Your task to perform on an android device: What's the weather going to be this weekend? Image 0: 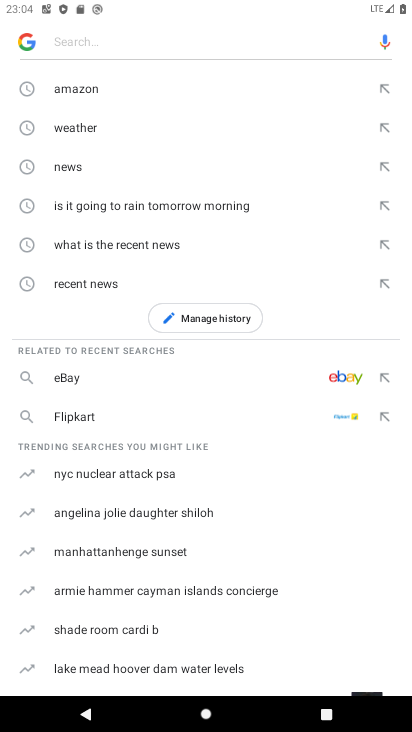
Step 0: press home button
Your task to perform on an android device: What's the weather going to be this weekend? Image 1: 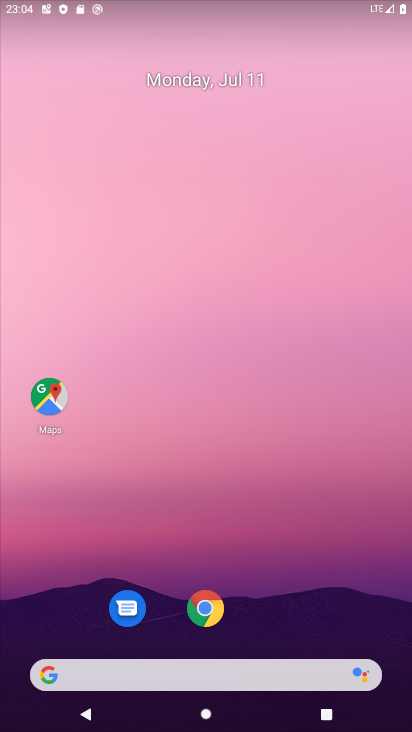
Step 1: click (115, 672)
Your task to perform on an android device: What's the weather going to be this weekend? Image 2: 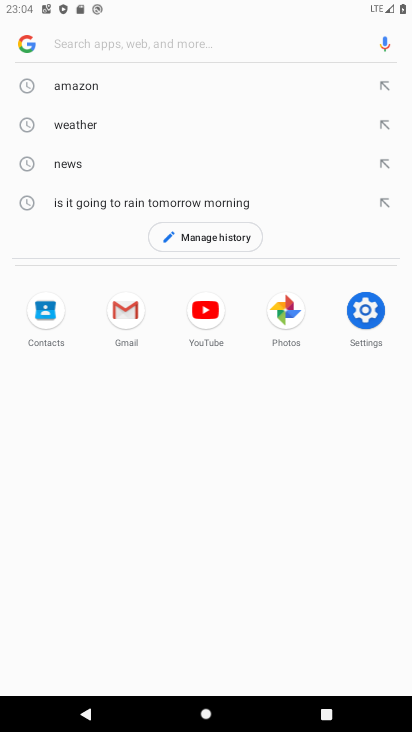
Step 2: type "What's the weather going to be this weekend?"
Your task to perform on an android device: What's the weather going to be this weekend? Image 3: 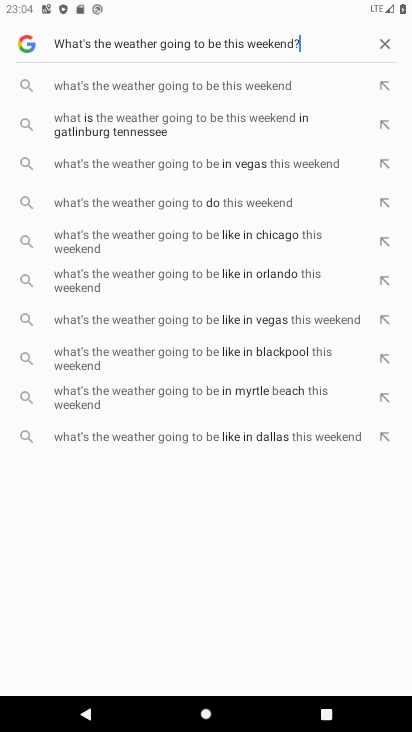
Step 3: type ""
Your task to perform on an android device: What's the weather going to be this weekend? Image 4: 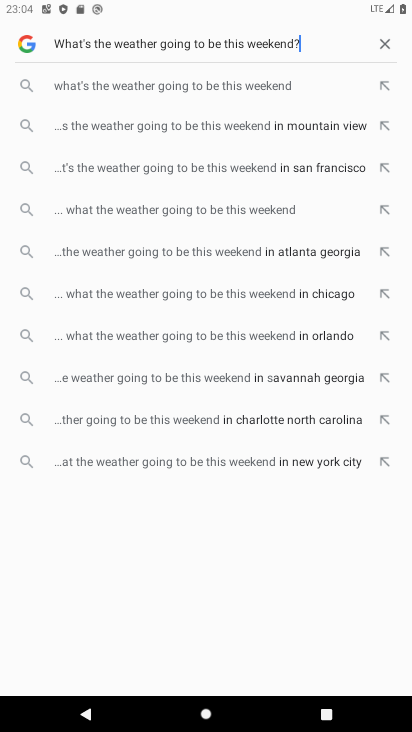
Step 4: click (178, 91)
Your task to perform on an android device: What's the weather going to be this weekend? Image 5: 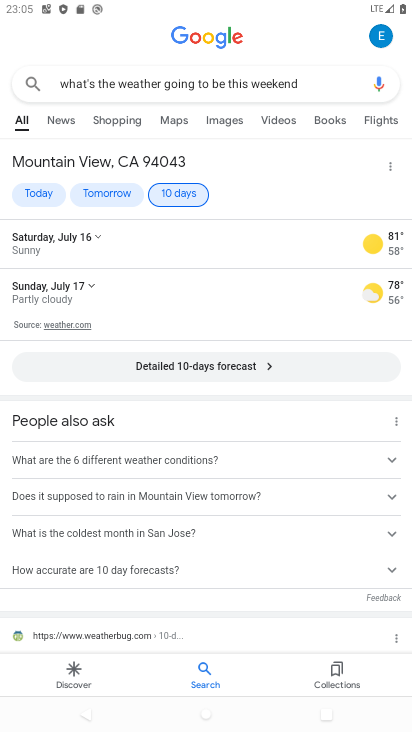
Step 5: task complete